Your task to perform on an android device: Open a new private window in Chrome Image 0: 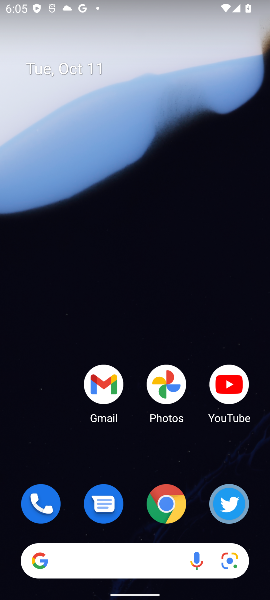
Step 0: click (166, 507)
Your task to perform on an android device: Open a new private window in Chrome Image 1: 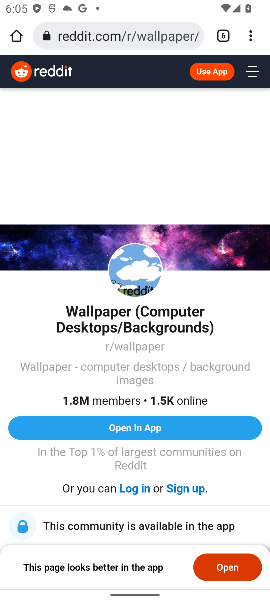
Step 1: task complete